Your task to perform on an android device: Open the phone app and click the voicemail tab. Image 0: 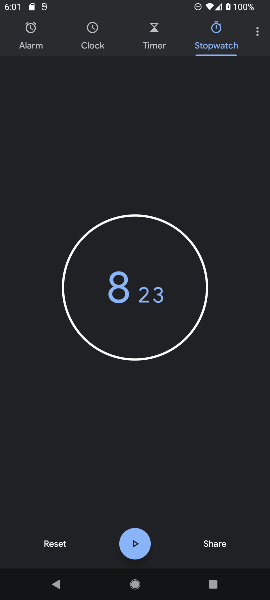
Step 0: press back button
Your task to perform on an android device: Open the phone app and click the voicemail tab. Image 1: 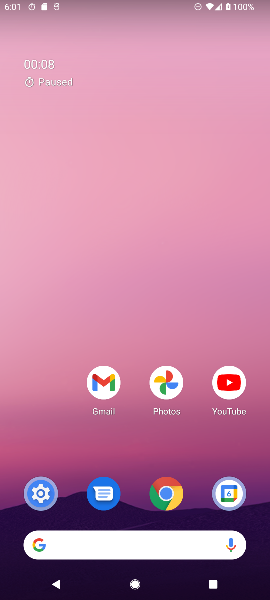
Step 1: drag from (134, 464) to (138, 210)
Your task to perform on an android device: Open the phone app and click the voicemail tab. Image 2: 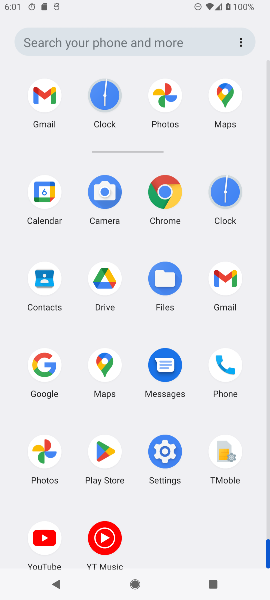
Step 2: drag from (160, 497) to (128, 293)
Your task to perform on an android device: Open the phone app and click the voicemail tab. Image 3: 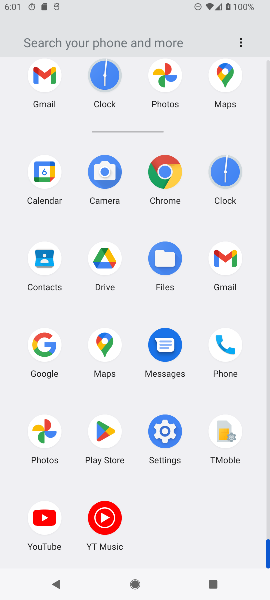
Step 3: click (227, 352)
Your task to perform on an android device: Open the phone app and click the voicemail tab. Image 4: 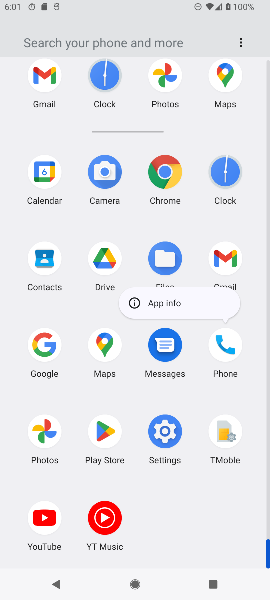
Step 4: click (225, 340)
Your task to perform on an android device: Open the phone app and click the voicemail tab. Image 5: 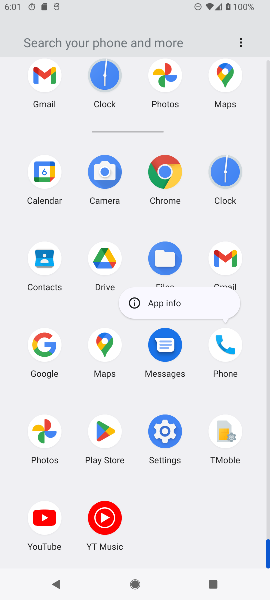
Step 5: click (221, 347)
Your task to perform on an android device: Open the phone app and click the voicemail tab. Image 6: 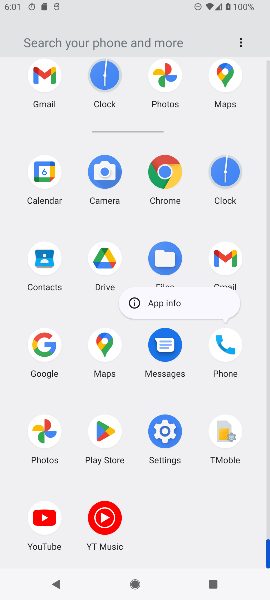
Step 6: click (221, 347)
Your task to perform on an android device: Open the phone app and click the voicemail tab. Image 7: 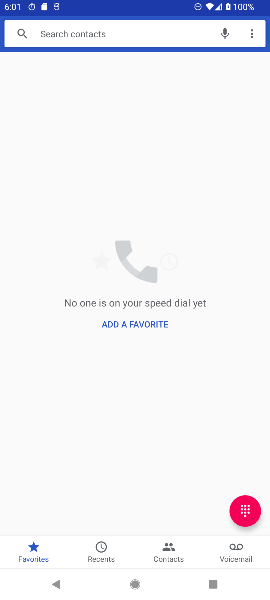
Step 7: click (228, 549)
Your task to perform on an android device: Open the phone app and click the voicemail tab. Image 8: 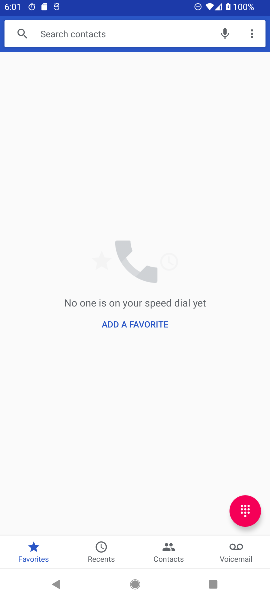
Step 8: click (228, 549)
Your task to perform on an android device: Open the phone app and click the voicemail tab. Image 9: 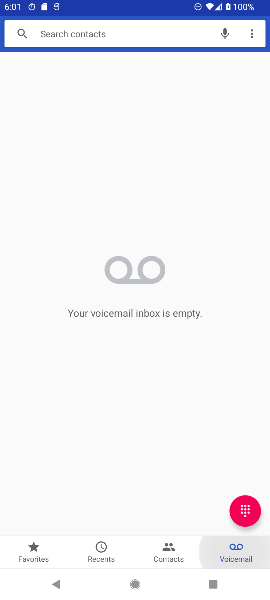
Step 9: click (228, 549)
Your task to perform on an android device: Open the phone app and click the voicemail tab. Image 10: 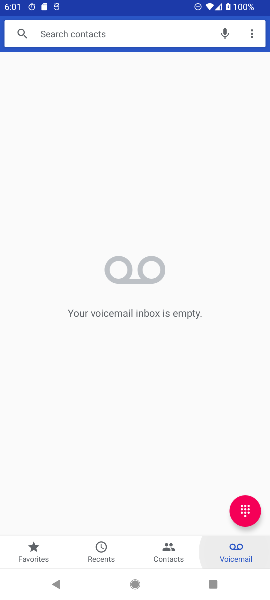
Step 10: click (229, 548)
Your task to perform on an android device: Open the phone app and click the voicemail tab. Image 11: 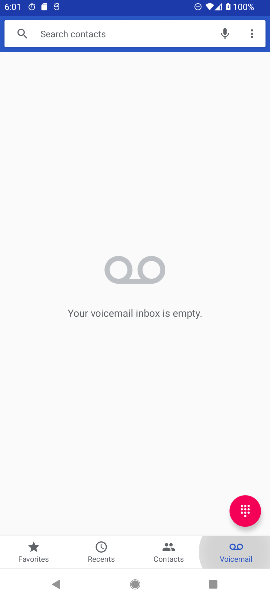
Step 11: click (228, 550)
Your task to perform on an android device: Open the phone app and click the voicemail tab. Image 12: 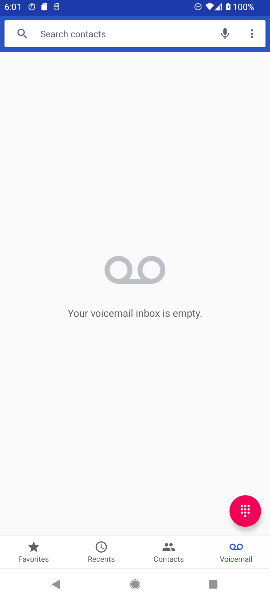
Step 12: task complete